Your task to perform on an android device: Add "alienware aurora" to the cart on newegg.com, then select checkout. Image 0: 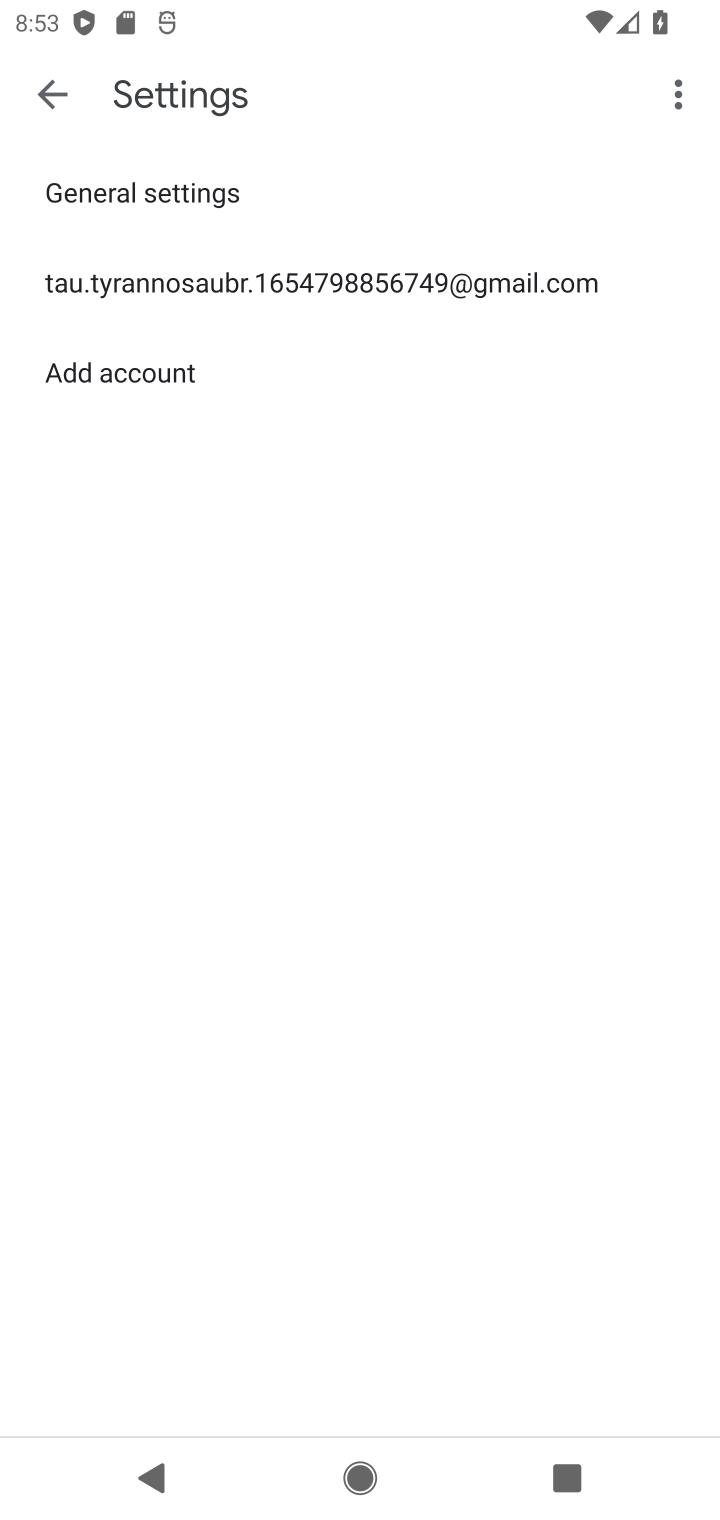
Step 0: press home button
Your task to perform on an android device: Add "alienware aurora" to the cart on newegg.com, then select checkout. Image 1: 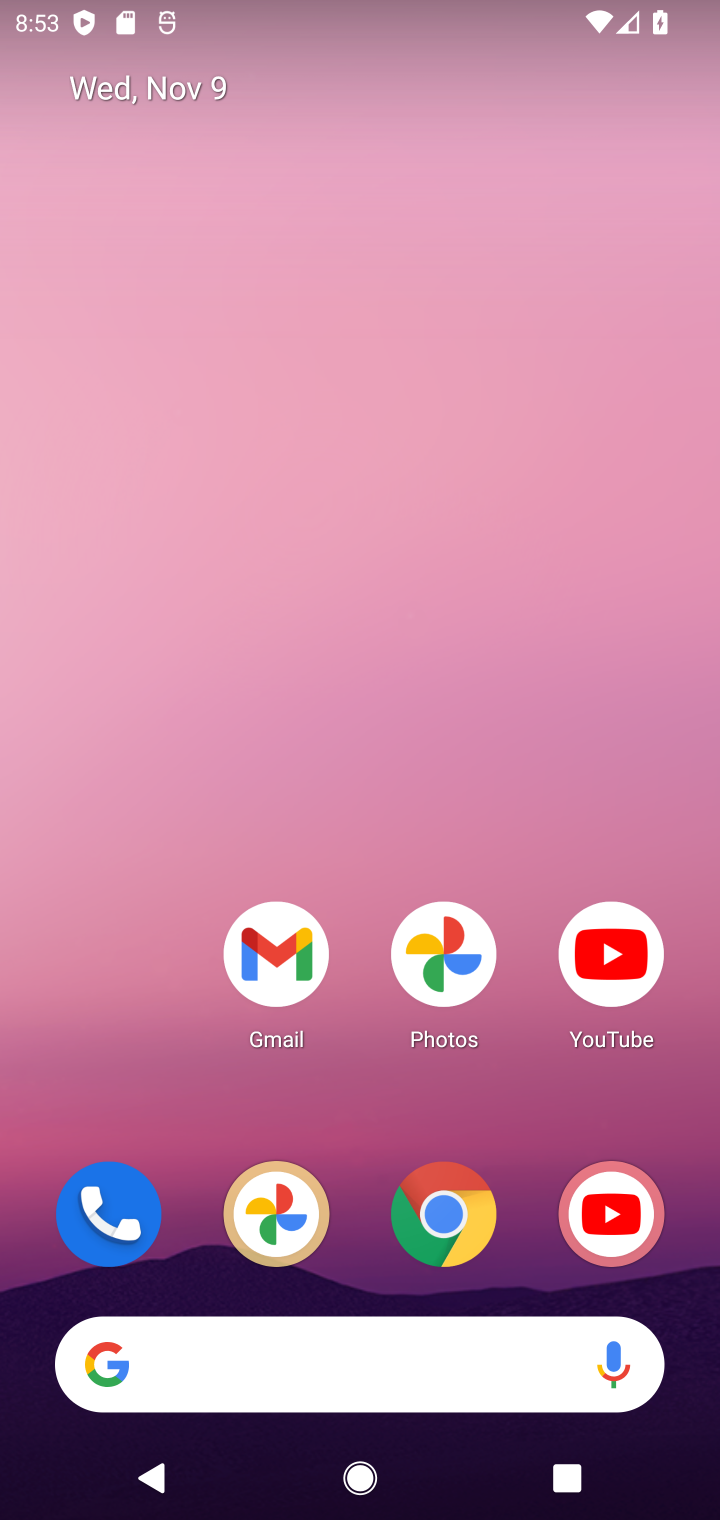
Step 1: drag from (383, 984) to (252, 111)
Your task to perform on an android device: Add "alienware aurora" to the cart on newegg.com, then select checkout. Image 2: 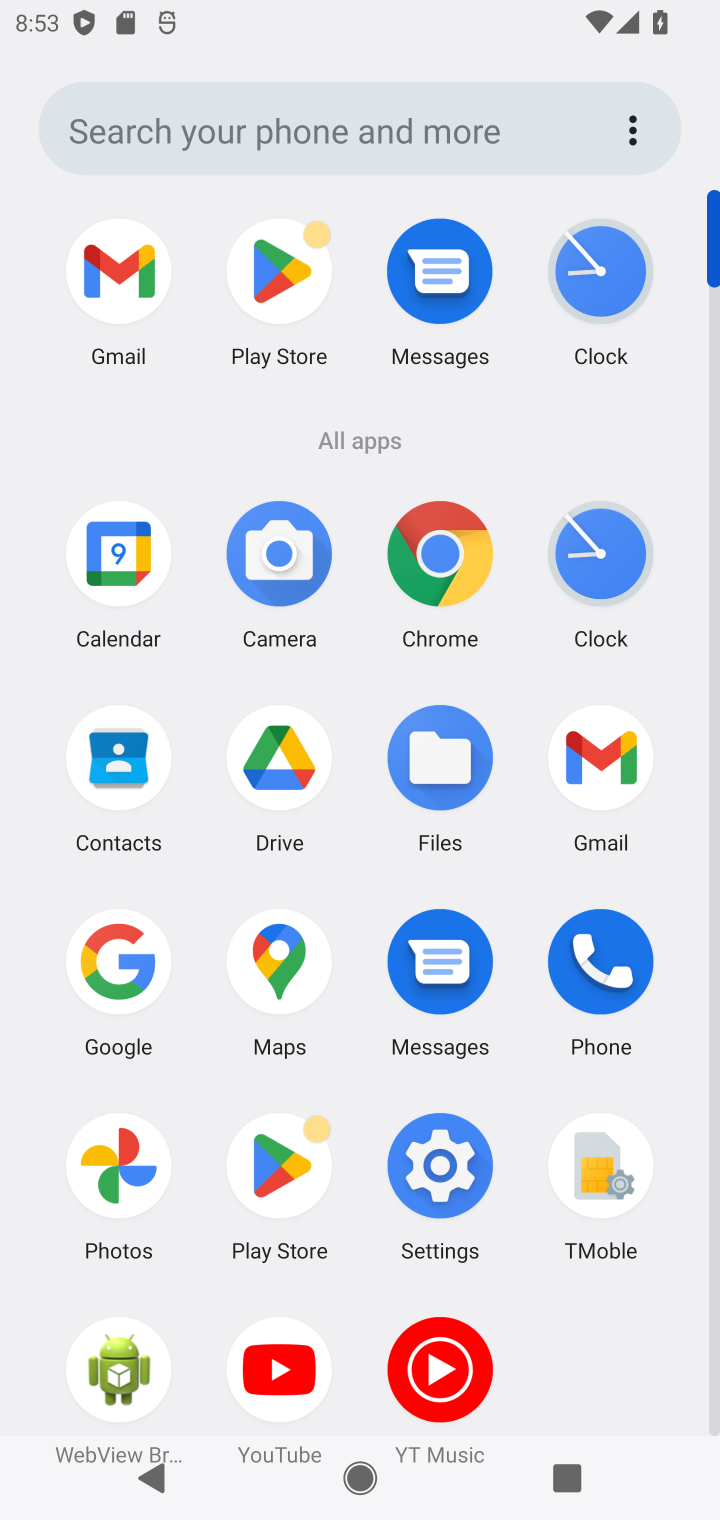
Step 2: click (434, 540)
Your task to perform on an android device: Add "alienware aurora" to the cart on newegg.com, then select checkout. Image 3: 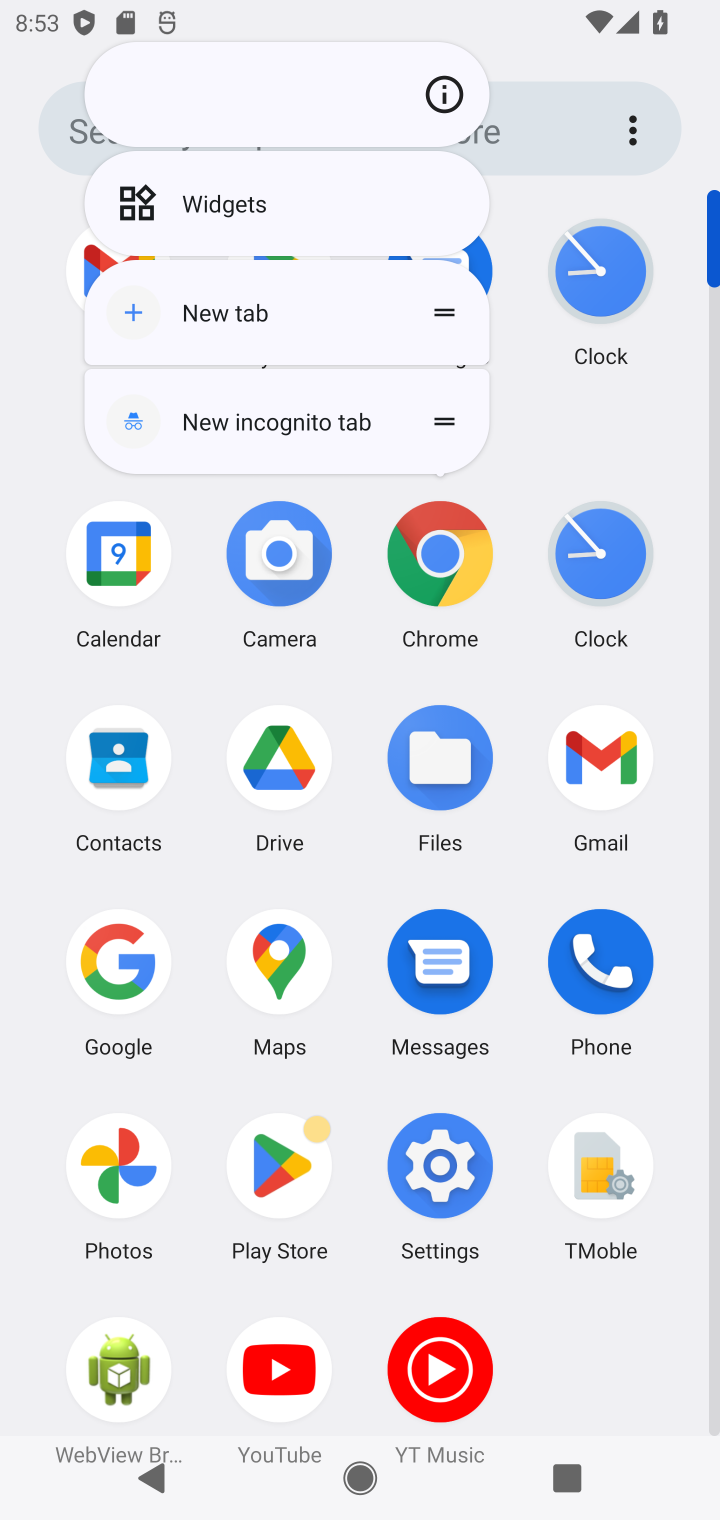
Step 3: click (429, 569)
Your task to perform on an android device: Add "alienware aurora" to the cart on newegg.com, then select checkout. Image 4: 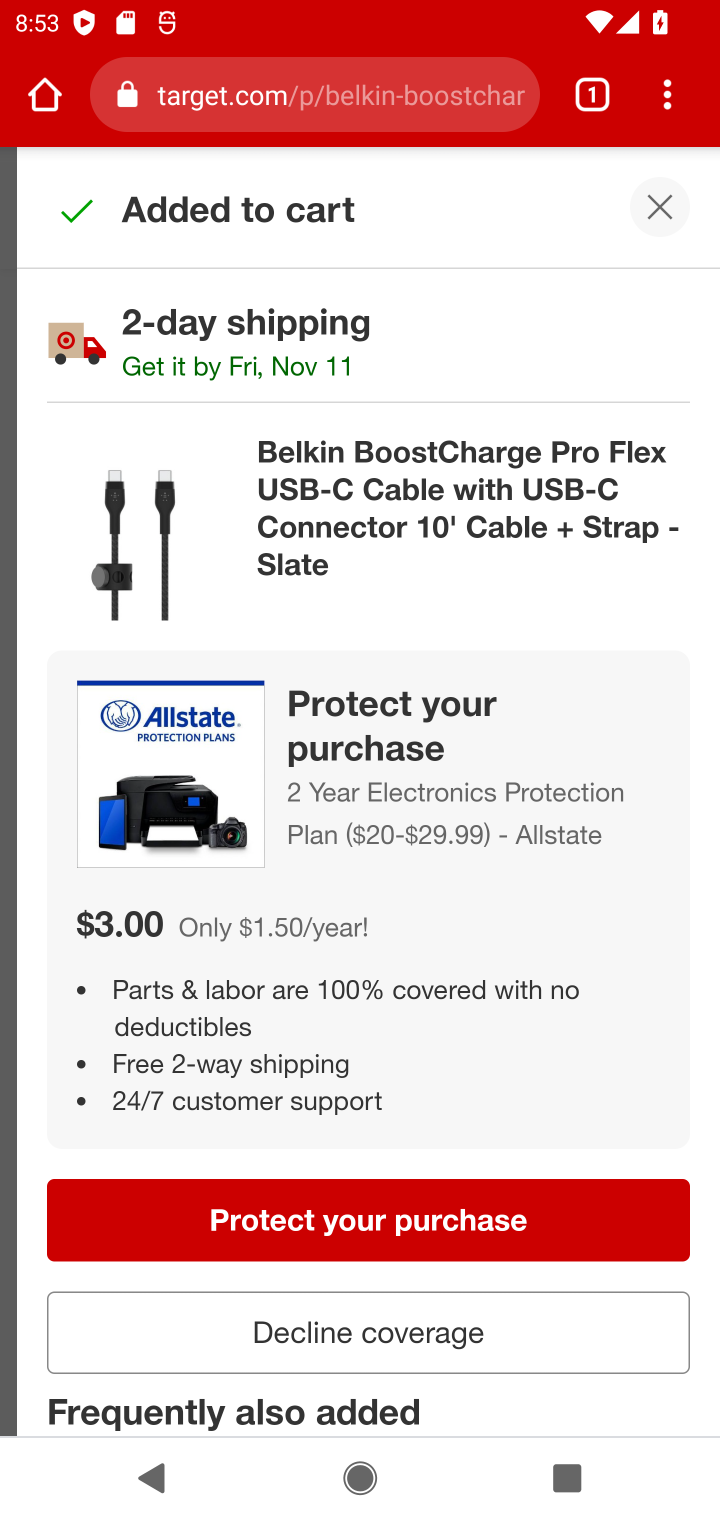
Step 4: click (370, 112)
Your task to perform on an android device: Add "alienware aurora" to the cart on newegg.com, then select checkout. Image 5: 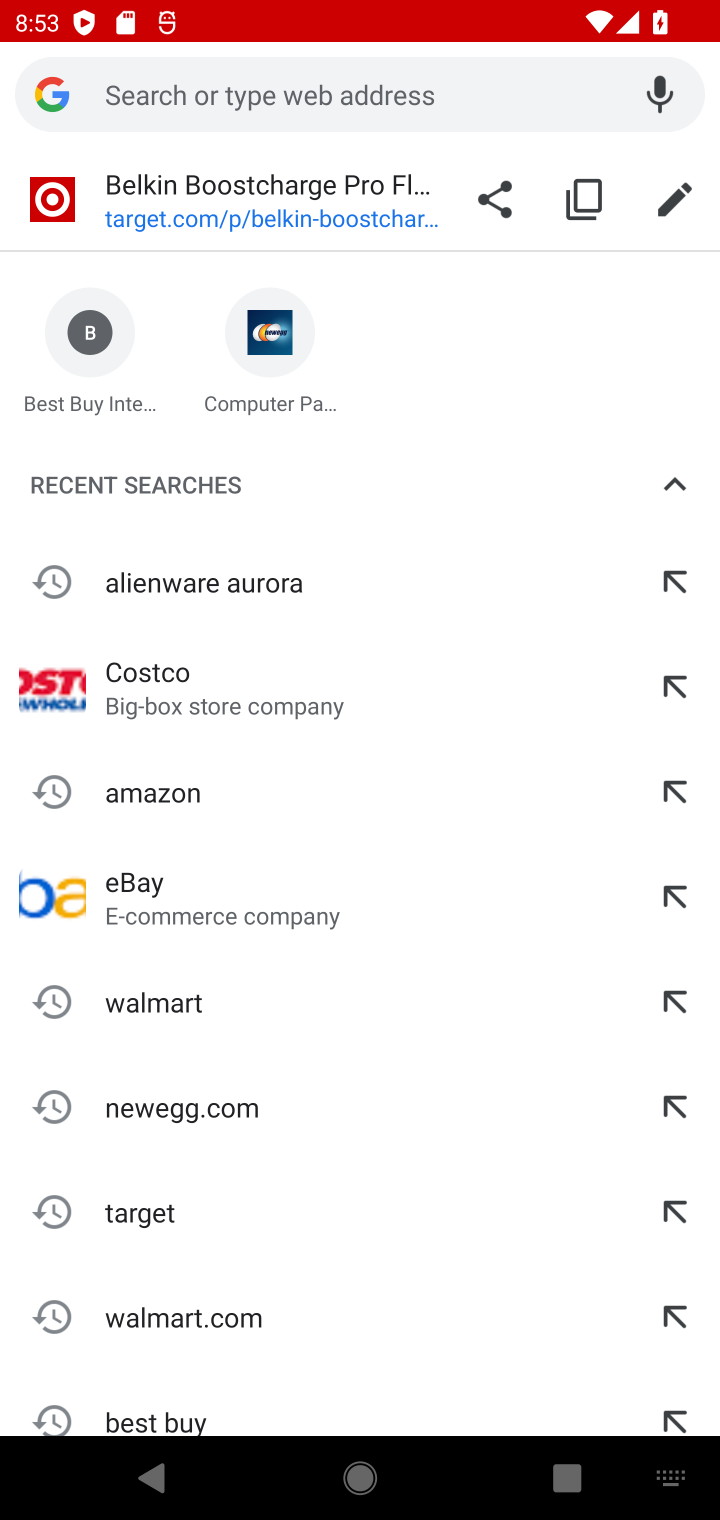
Step 5: type "newegg.com"
Your task to perform on an android device: Add "alienware aurora" to the cart on newegg.com, then select checkout. Image 6: 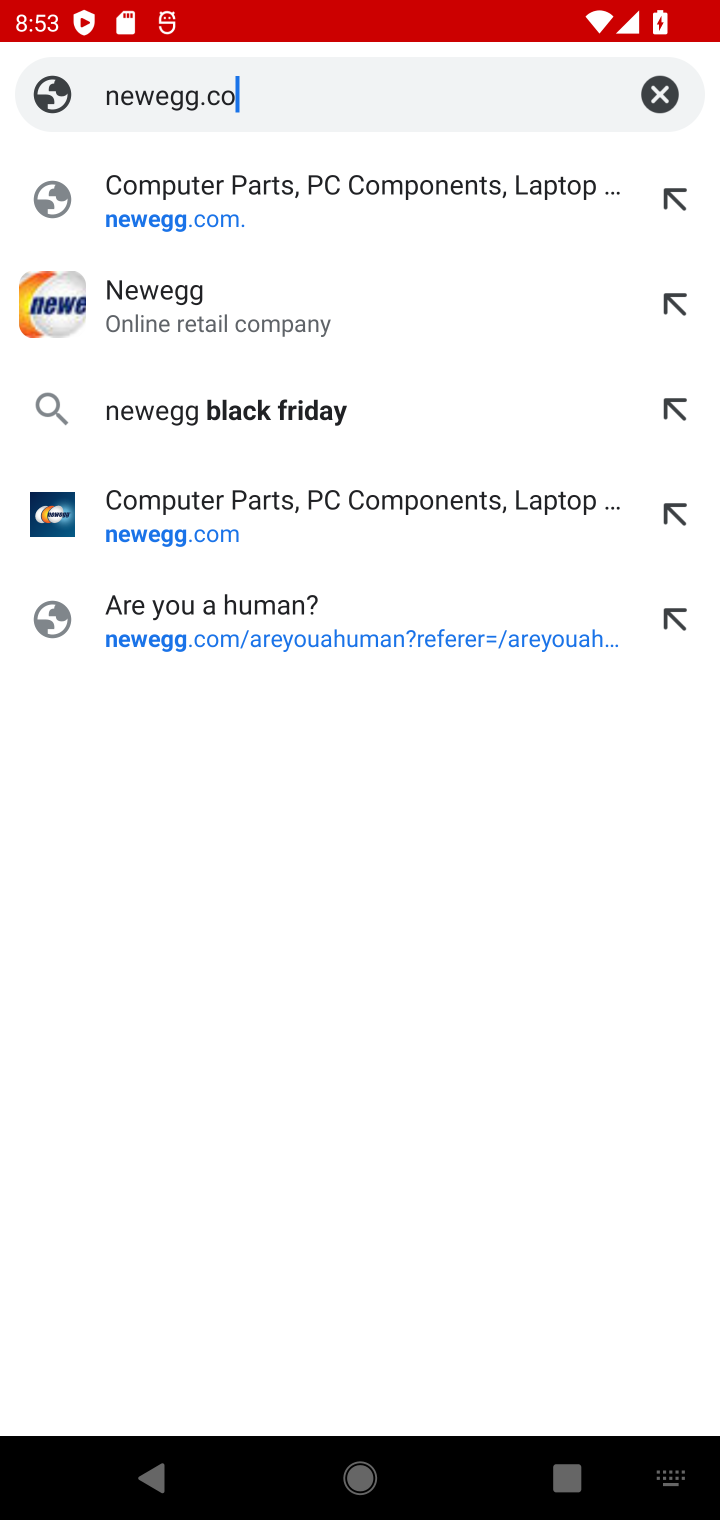
Step 6: press enter
Your task to perform on an android device: Add "alienware aurora" to the cart on newegg.com, then select checkout. Image 7: 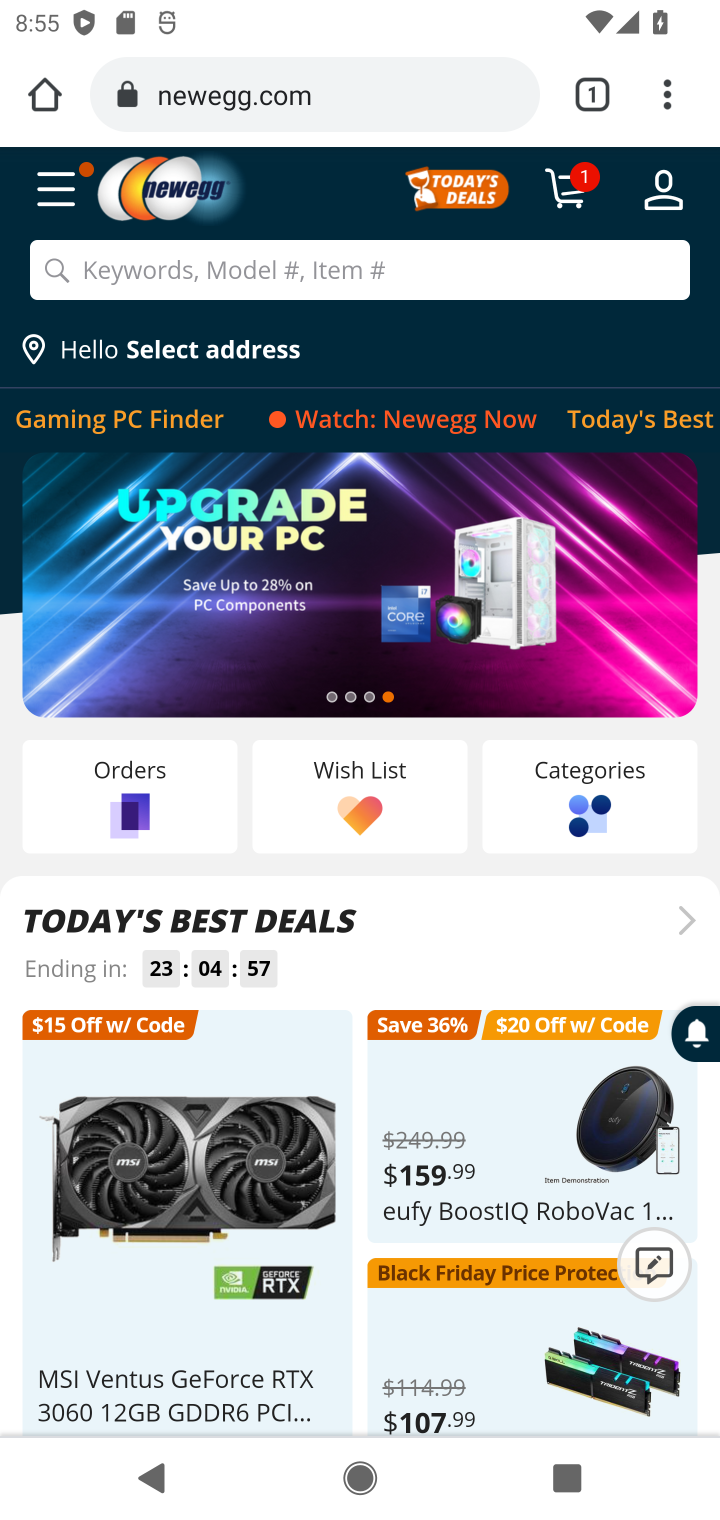
Step 7: click (393, 279)
Your task to perform on an android device: Add "alienware aurora" to the cart on newegg.com, then select checkout. Image 8: 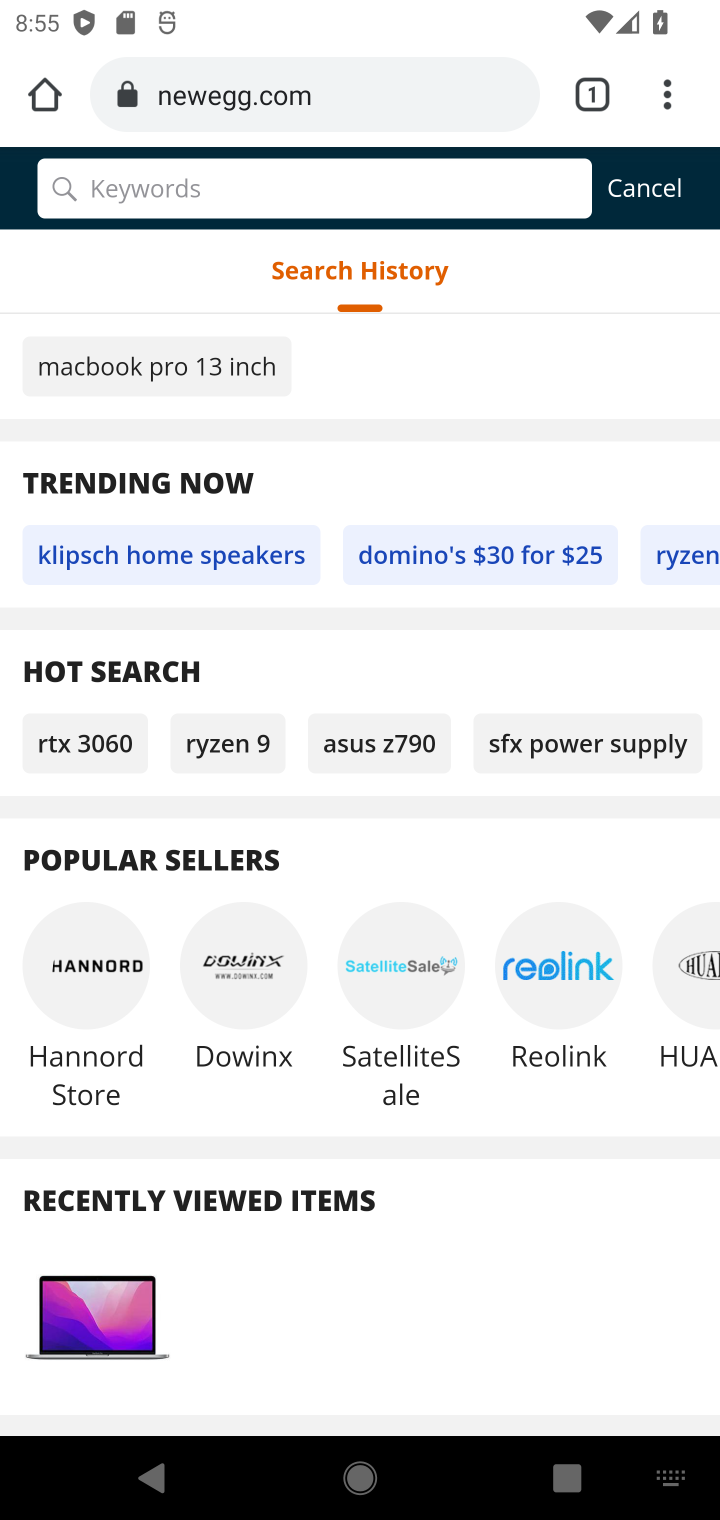
Step 8: type "alienware aurora"
Your task to perform on an android device: Add "alienware aurora" to the cart on newegg.com, then select checkout. Image 9: 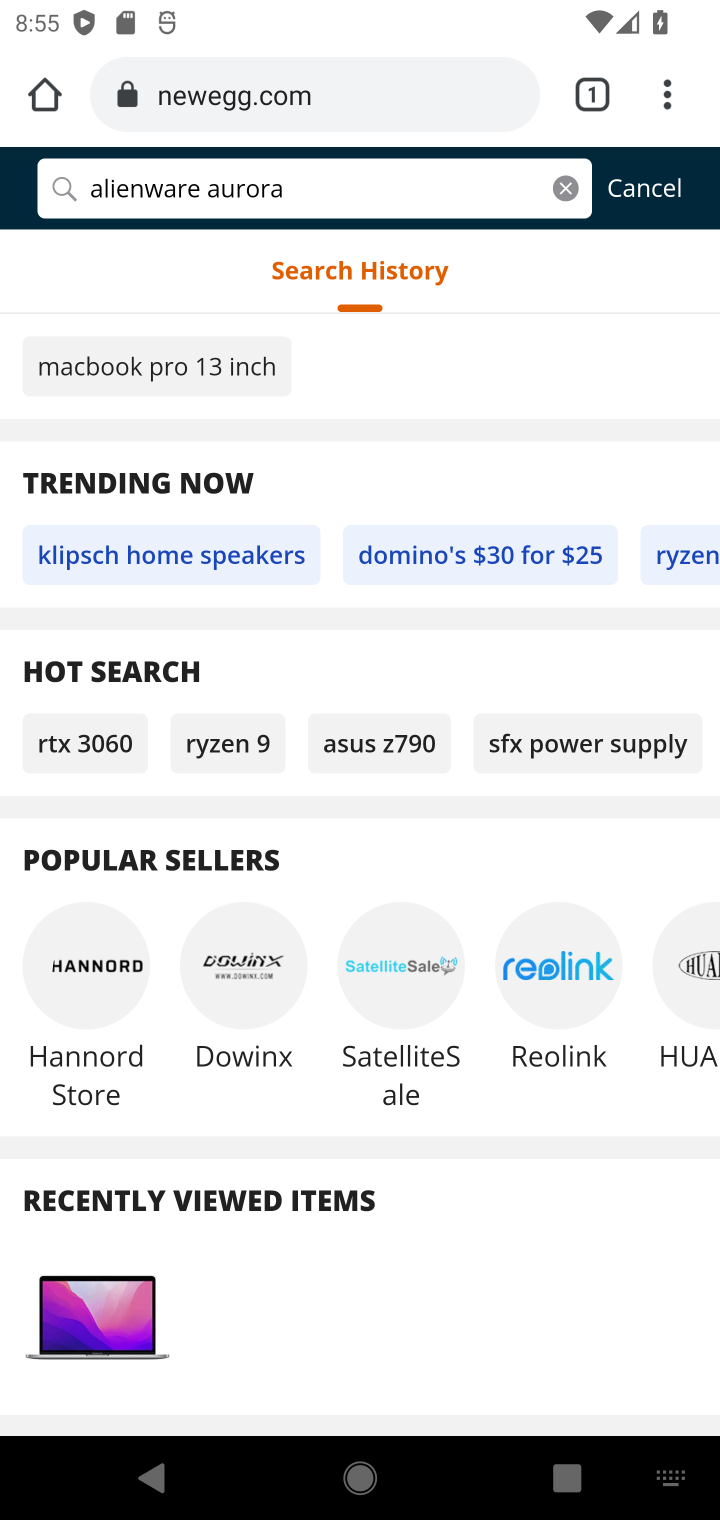
Step 9: press enter
Your task to perform on an android device: Add "alienware aurora" to the cart on newegg.com, then select checkout. Image 10: 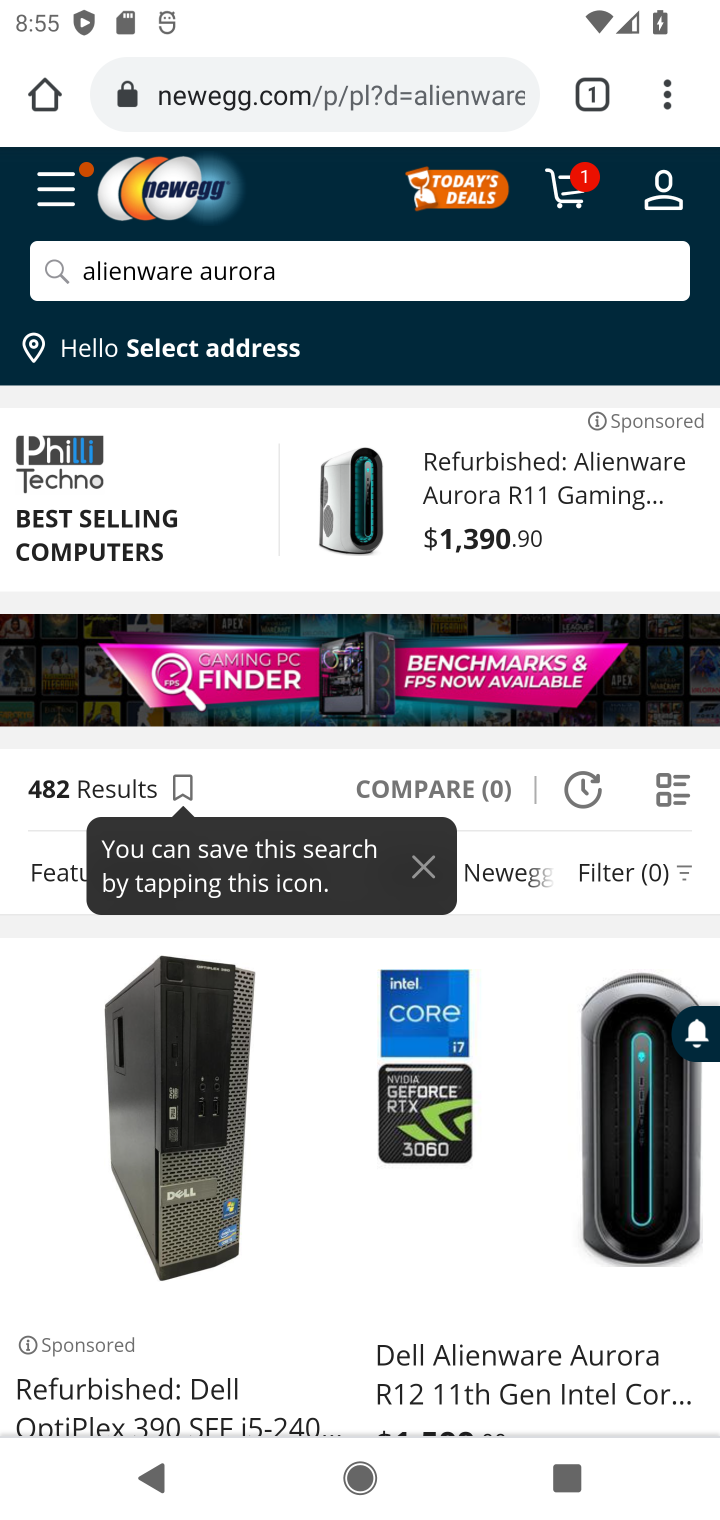
Step 10: drag from (547, 1141) to (550, 618)
Your task to perform on an android device: Add "alienware aurora" to the cart on newegg.com, then select checkout. Image 11: 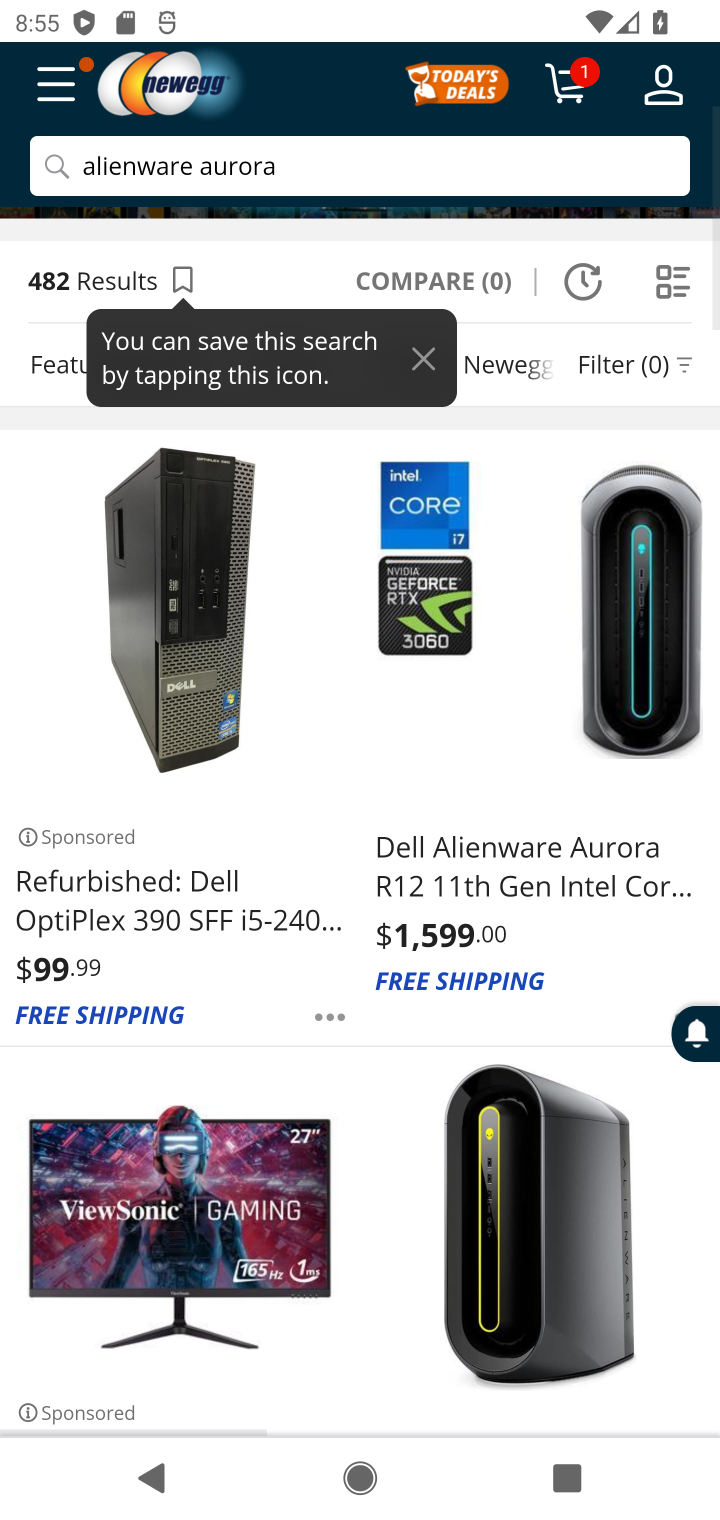
Step 11: click (528, 898)
Your task to perform on an android device: Add "alienware aurora" to the cart on newegg.com, then select checkout. Image 12: 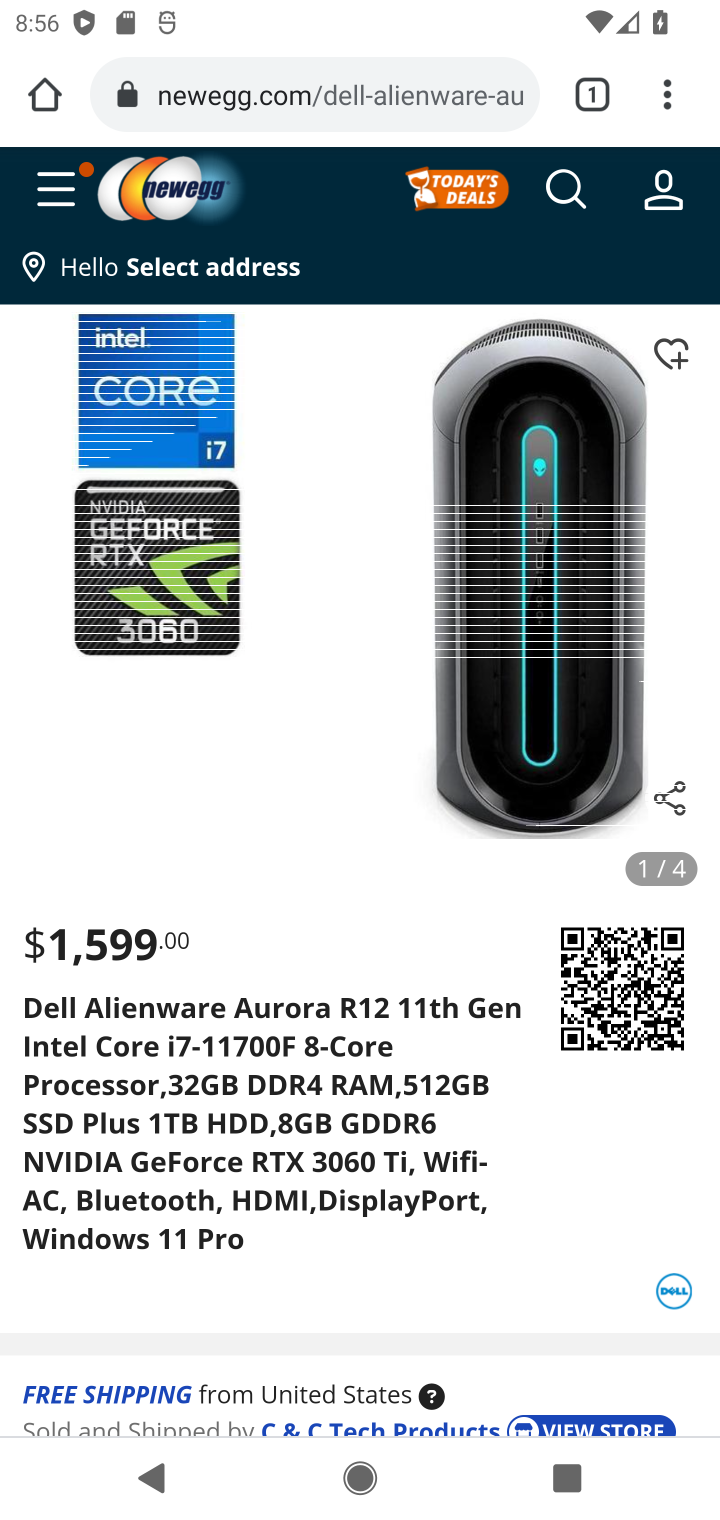
Step 12: drag from (469, 1206) to (465, 849)
Your task to perform on an android device: Add "alienware aurora" to the cart on newegg.com, then select checkout. Image 13: 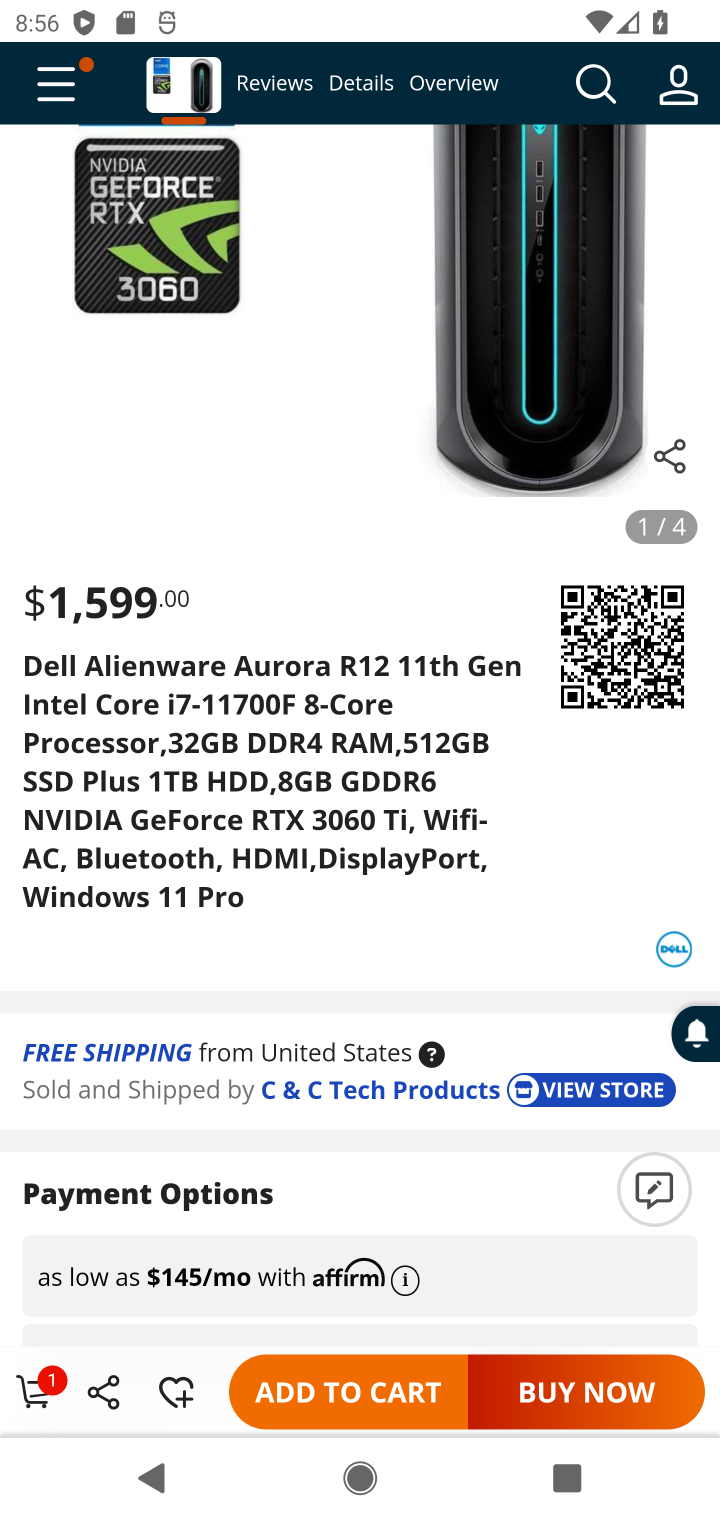
Step 13: click (371, 1399)
Your task to perform on an android device: Add "alienware aurora" to the cart on newegg.com, then select checkout. Image 14: 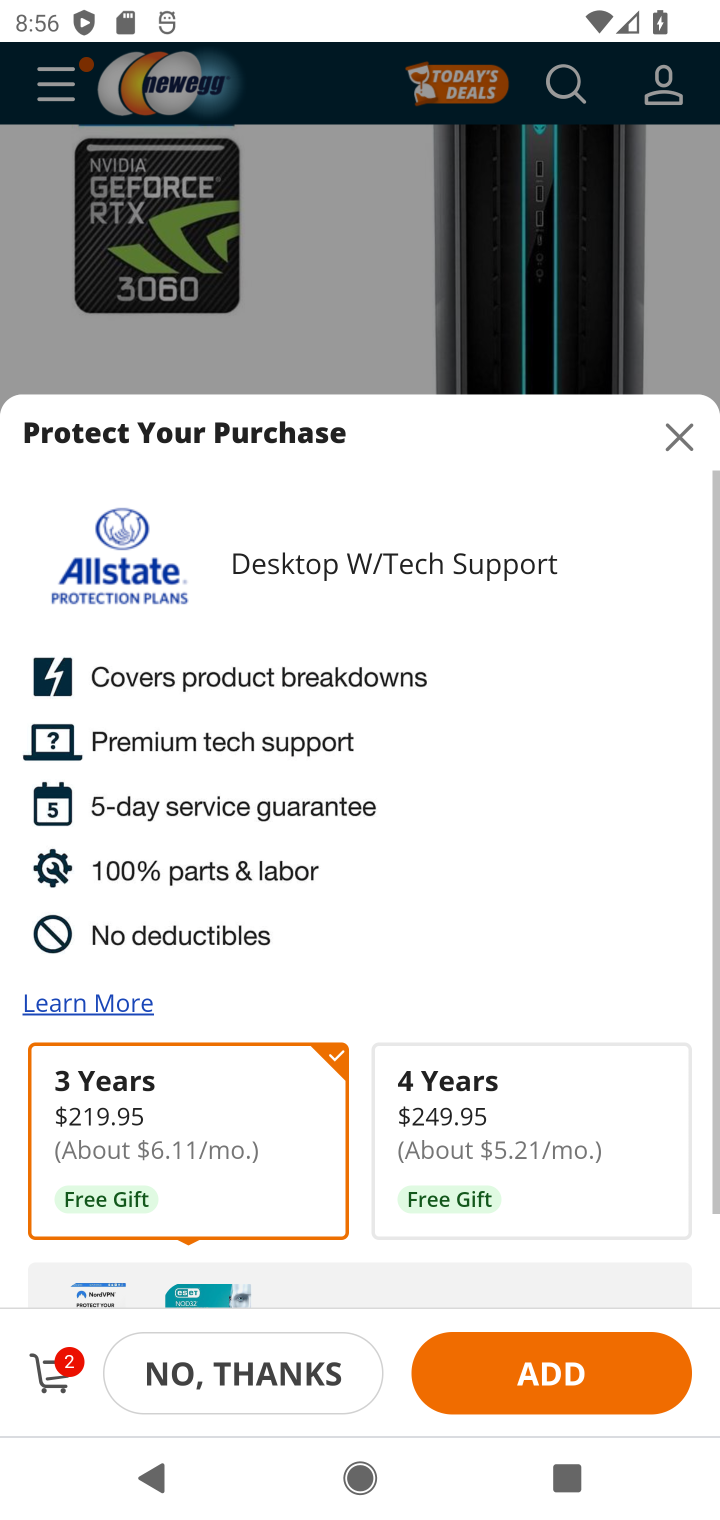
Step 14: click (63, 1368)
Your task to perform on an android device: Add "alienware aurora" to the cart on newegg.com, then select checkout. Image 15: 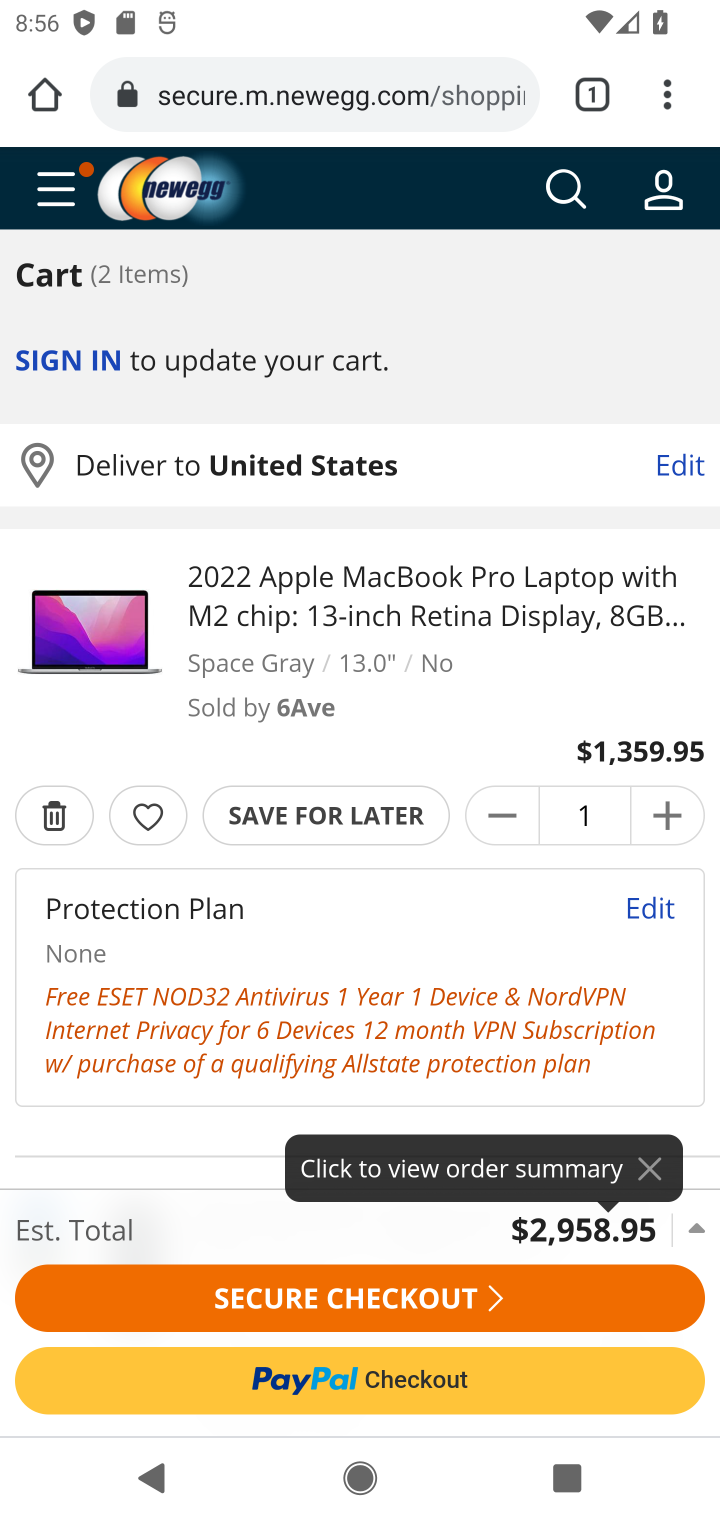
Step 15: click (374, 1302)
Your task to perform on an android device: Add "alienware aurora" to the cart on newegg.com, then select checkout. Image 16: 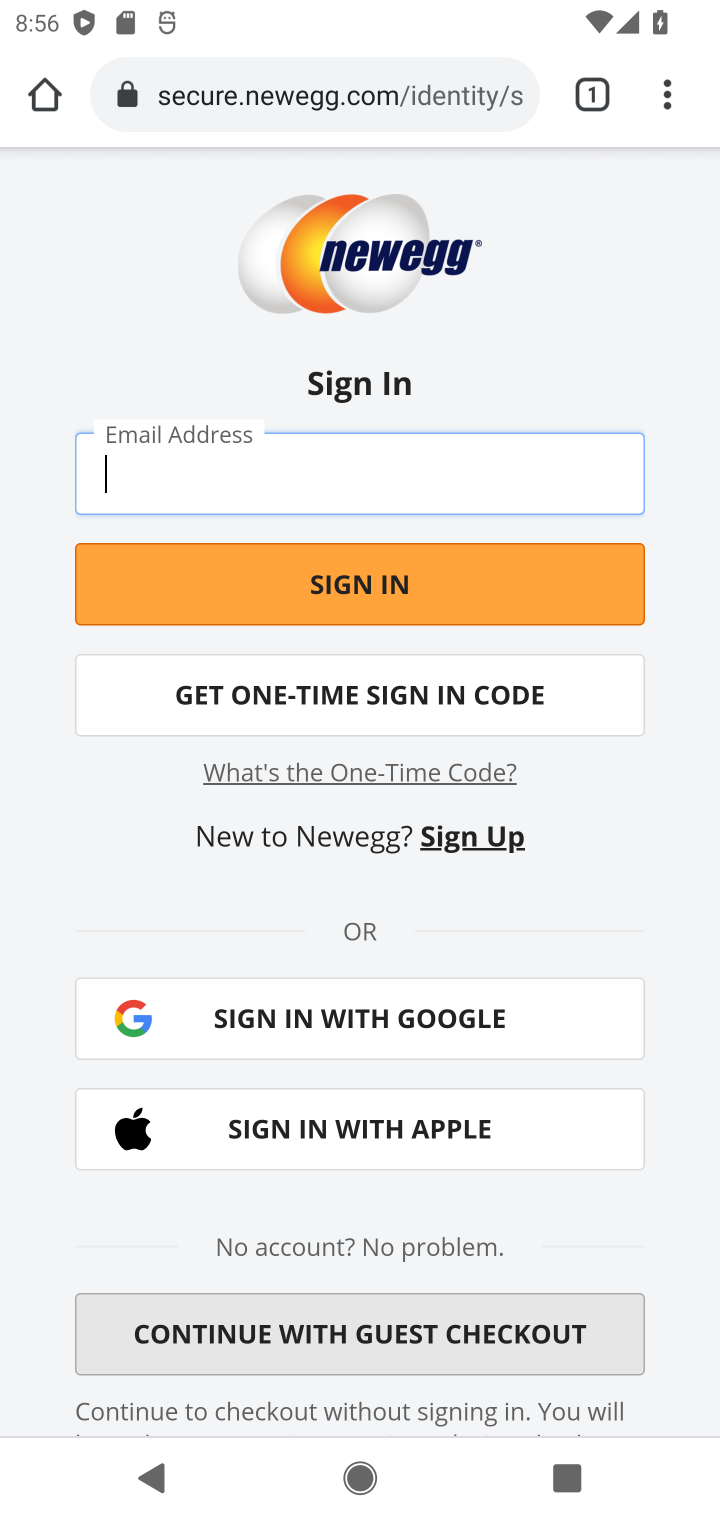
Step 16: task complete